Your task to perform on an android device: turn off smart reply in the gmail app Image 0: 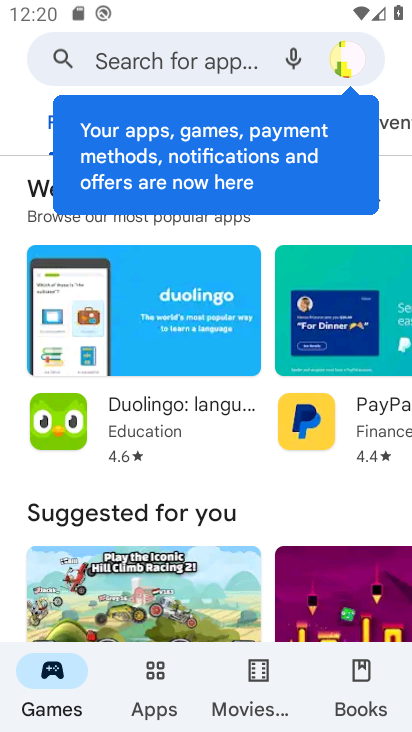
Step 0: press home button
Your task to perform on an android device: turn off smart reply in the gmail app Image 1: 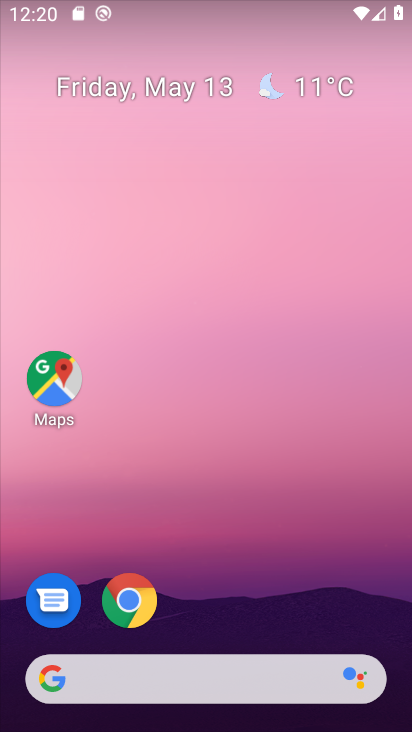
Step 1: drag from (214, 602) to (238, 208)
Your task to perform on an android device: turn off smart reply in the gmail app Image 2: 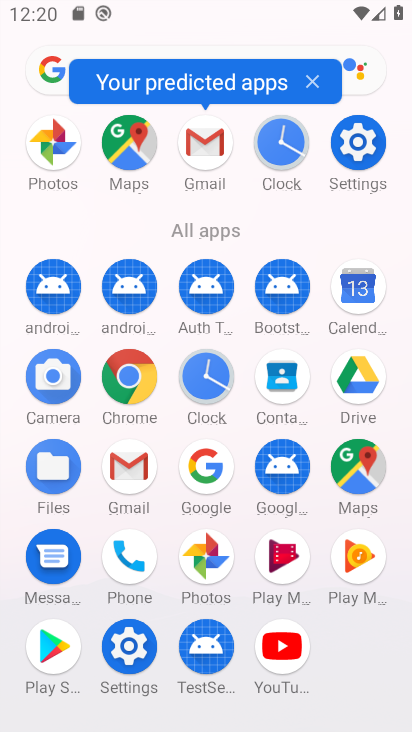
Step 2: click (208, 155)
Your task to perform on an android device: turn off smart reply in the gmail app Image 3: 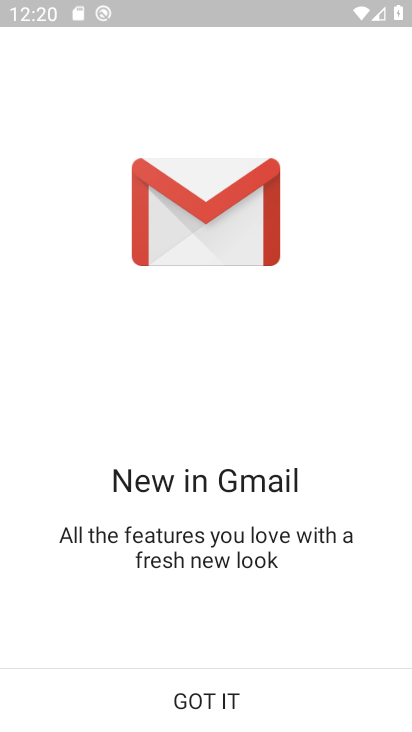
Step 3: click (218, 716)
Your task to perform on an android device: turn off smart reply in the gmail app Image 4: 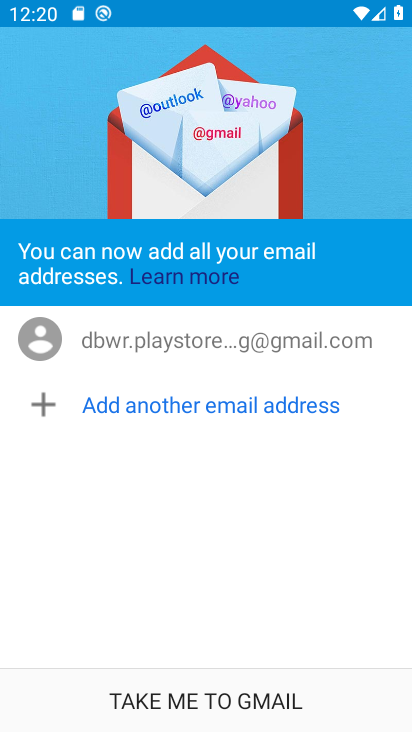
Step 4: click (195, 695)
Your task to perform on an android device: turn off smart reply in the gmail app Image 5: 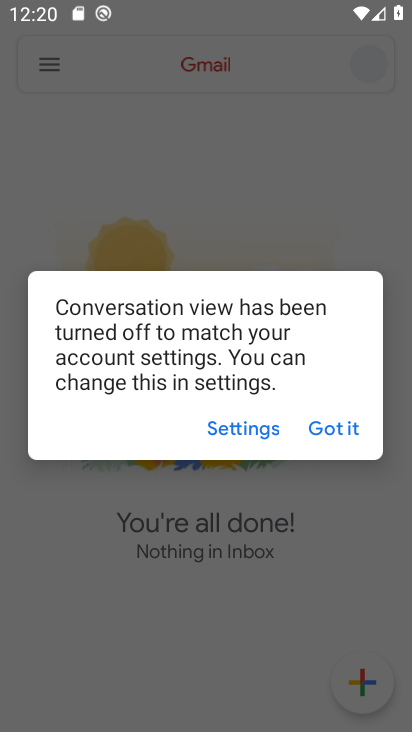
Step 5: click (327, 440)
Your task to perform on an android device: turn off smart reply in the gmail app Image 6: 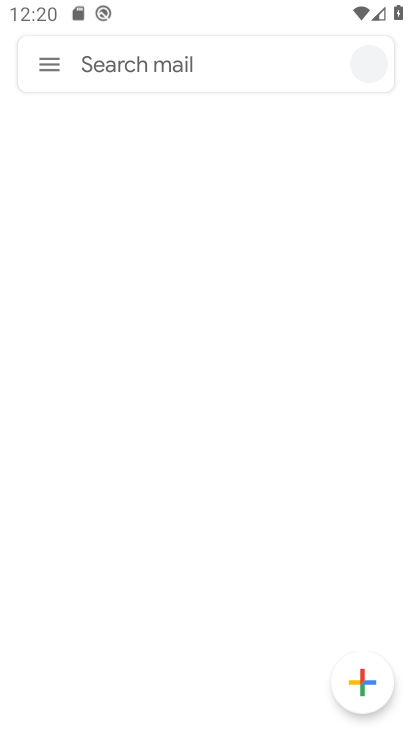
Step 6: click (48, 72)
Your task to perform on an android device: turn off smart reply in the gmail app Image 7: 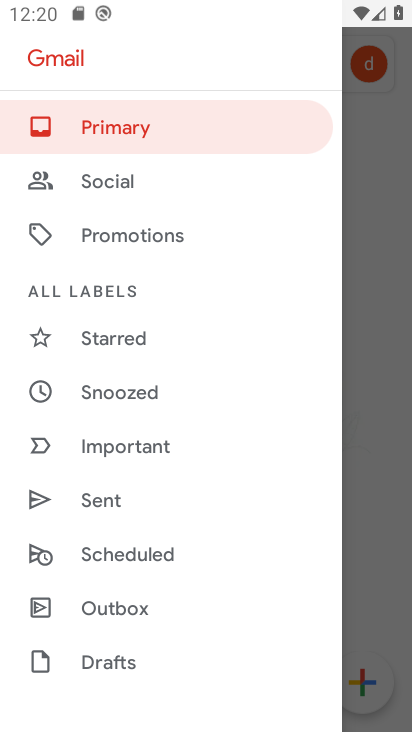
Step 7: drag from (122, 670) to (153, 350)
Your task to perform on an android device: turn off smart reply in the gmail app Image 8: 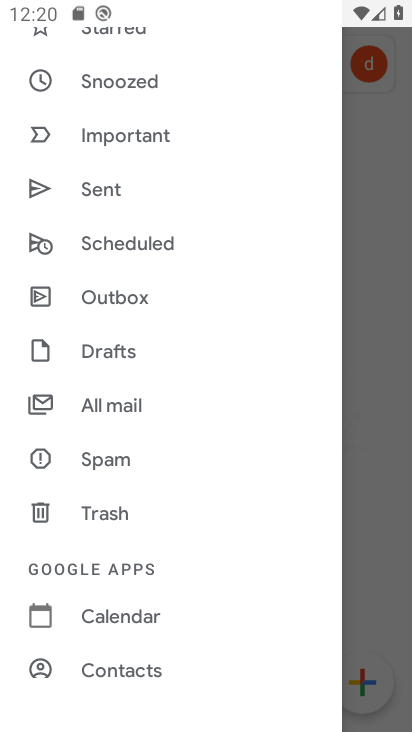
Step 8: drag from (179, 623) to (236, 301)
Your task to perform on an android device: turn off smart reply in the gmail app Image 9: 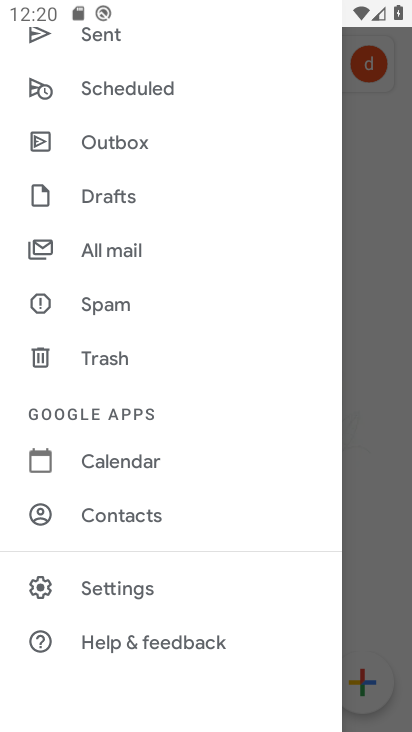
Step 9: click (137, 590)
Your task to perform on an android device: turn off smart reply in the gmail app Image 10: 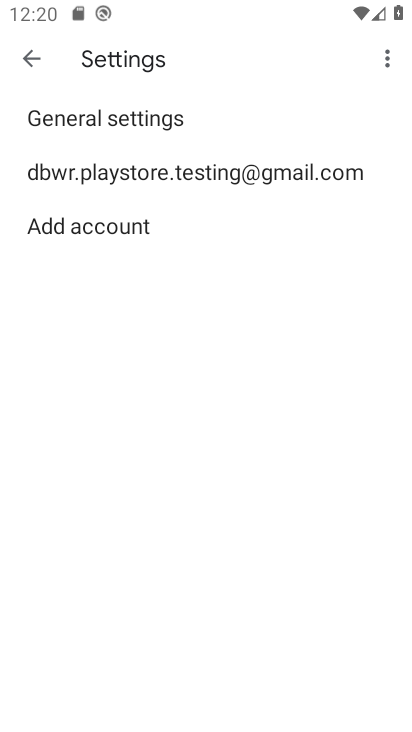
Step 10: click (169, 195)
Your task to perform on an android device: turn off smart reply in the gmail app Image 11: 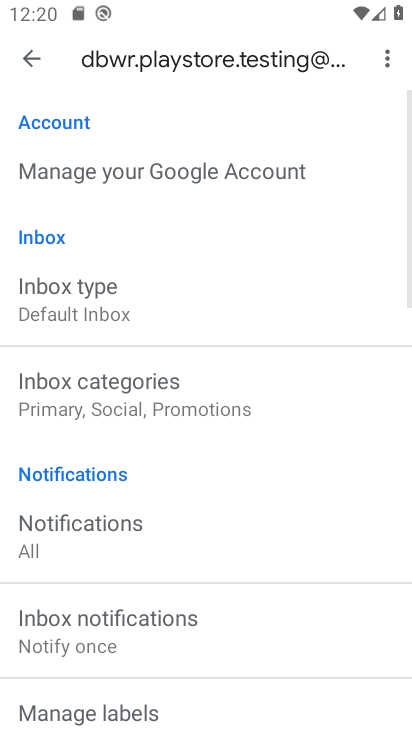
Step 11: drag from (139, 639) to (184, 359)
Your task to perform on an android device: turn off smart reply in the gmail app Image 12: 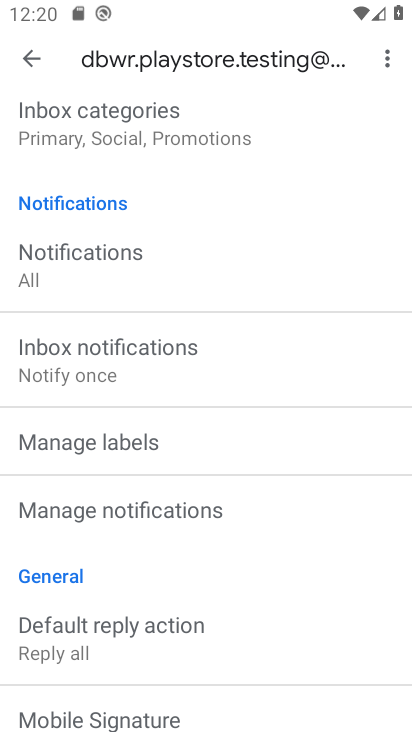
Step 12: drag from (96, 589) to (166, 167)
Your task to perform on an android device: turn off smart reply in the gmail app Image 13: 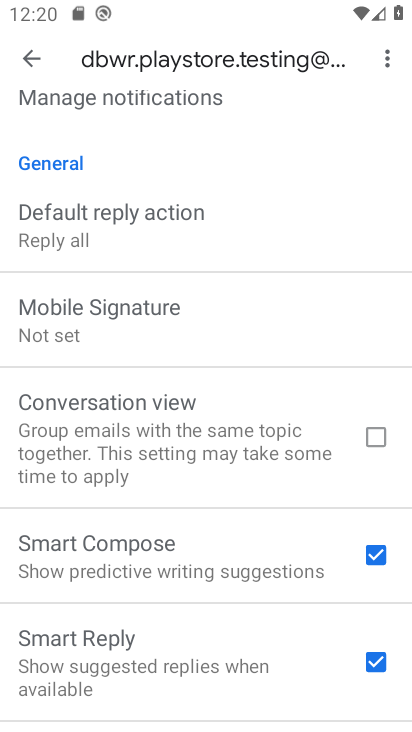
Step 13: click (376, 665)
Your task to perform on an android device: turn off smart reply in the gmail app Image 14: 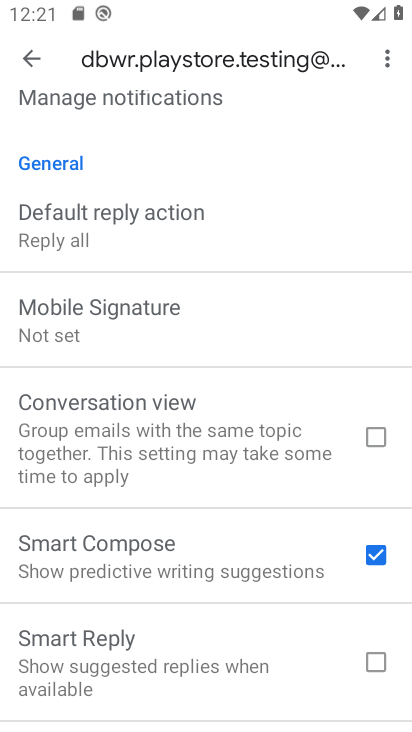
Step 14: task complete